Your task to perform on an android device: check out phone information Image 0: 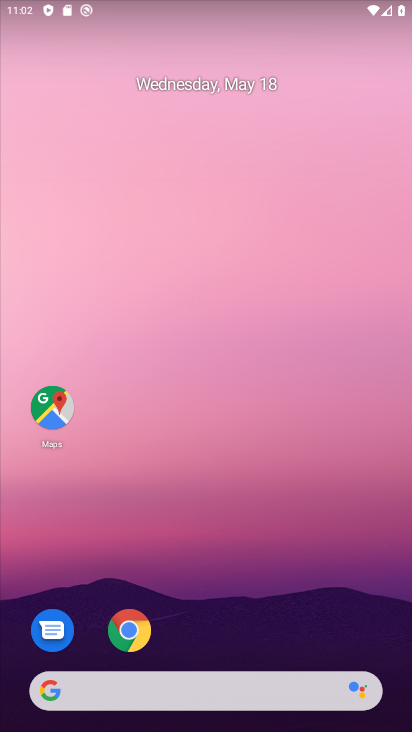
Step 0: drag from (243, 616) to (311, 144)
Your task to perform on an android device: check out phone information Image 1: 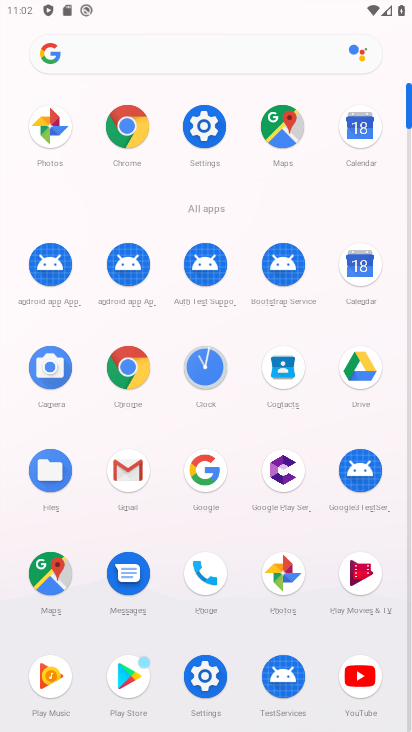
Step 1: click (199, 141)
Your task to perform on an android device: check out phone information Image 2: 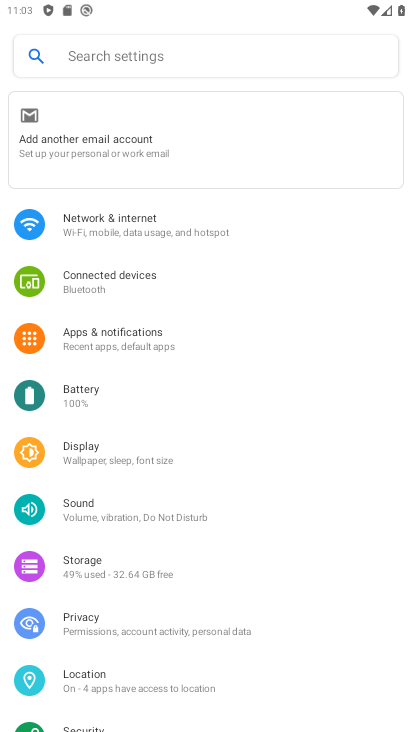
Step 2: drag from (114, 625) to (223, 65)
Your task to perform on an android device: check out phone information Image 3: 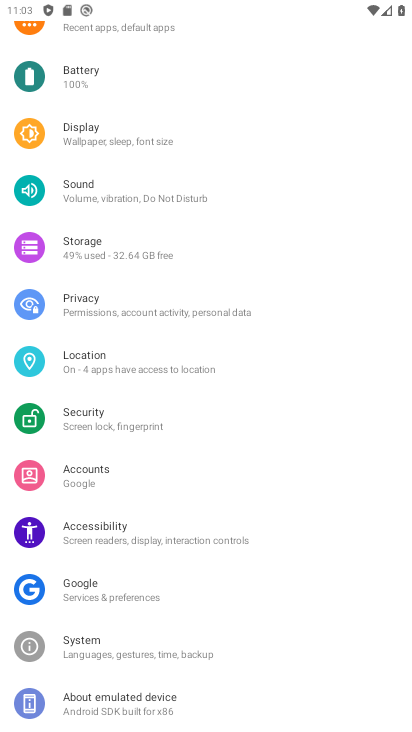
Step 3: click (126, 700)
Your task to perform on an android device: check out phone information Image 4: 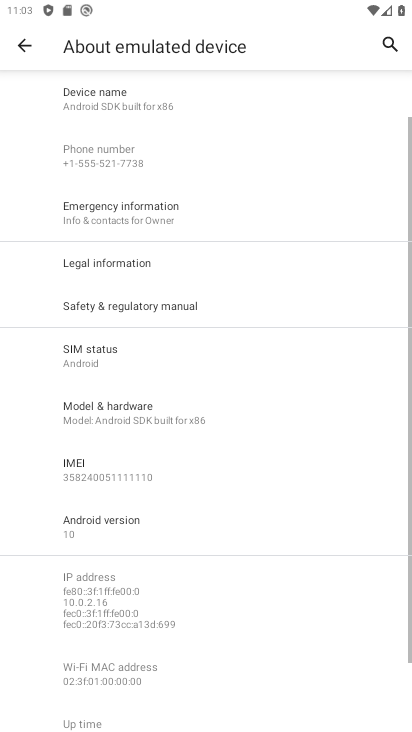
Step 4: task complete